Your task to perform on an android device: open chrome and create a bookmark for the current page Image 0: 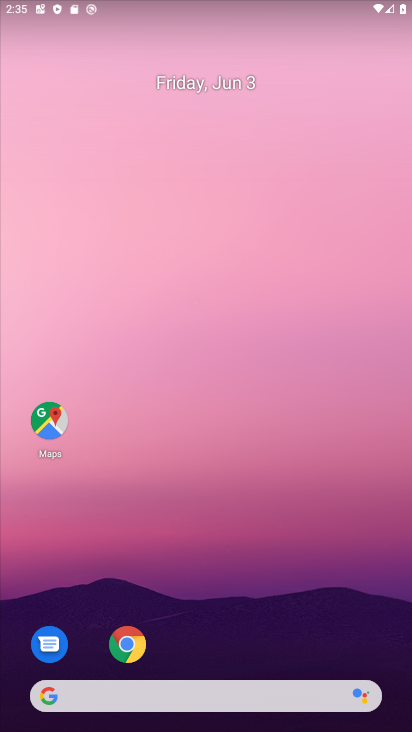
Step 0: click (127, 638)
Your task to perform on an android device: open chrome and create a bookmark for the current page Image 1: 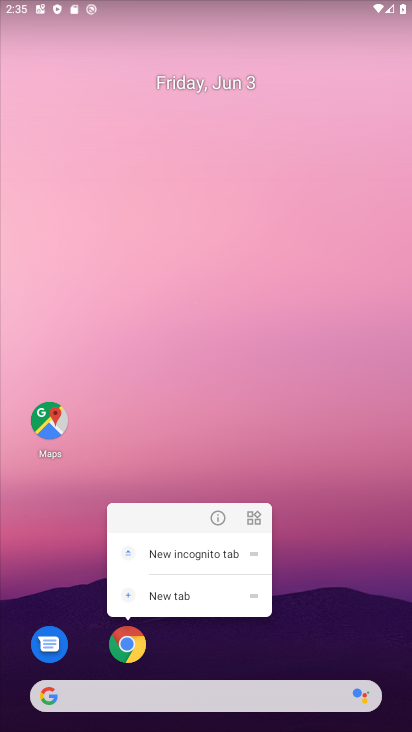
Step 1: click (127, 638)
Your task to perform on an android device: open chrome and create a bookmark for the current page Image 2: 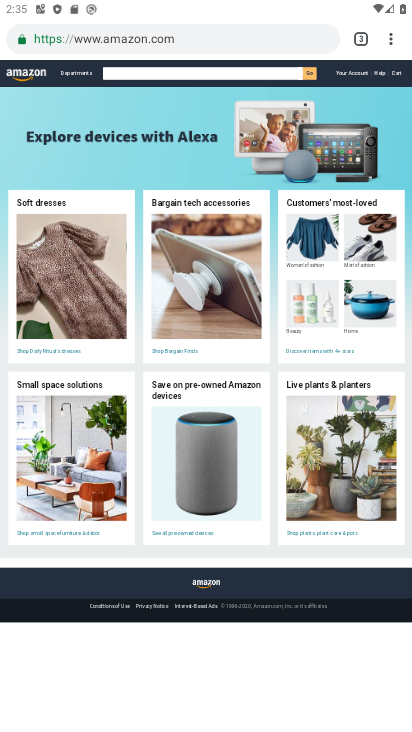
Step 2: drag from (389, 38) to (272, 50)
Your task to perform on an android device: open chrome and create a bookmark for the current page Image 3: 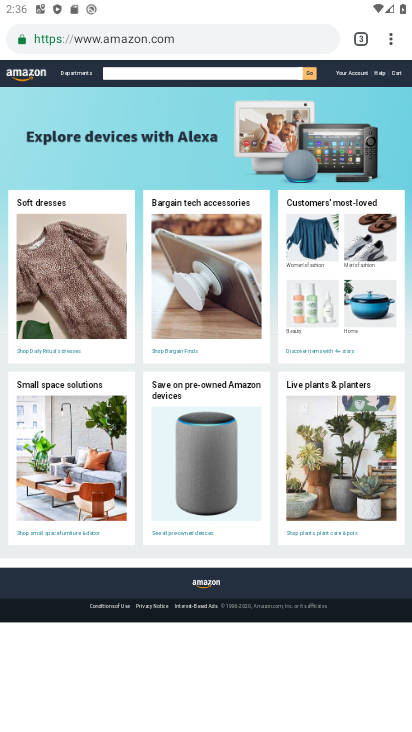
Step 3: click (388, 36)
Your task to perform on an android device: open chrome and create a bookmark for the current page Image 4: 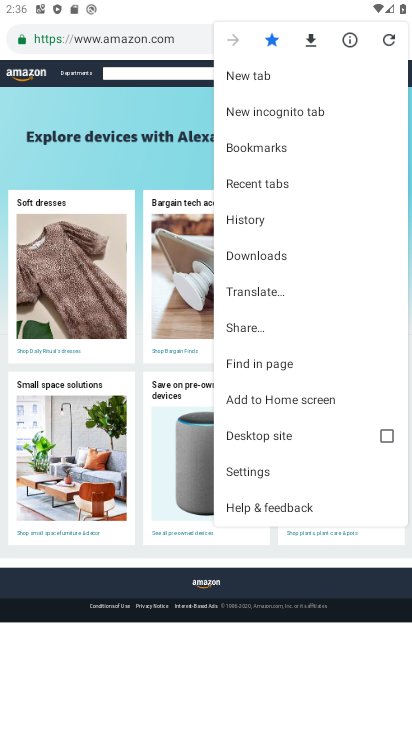
Step 4: task complete